Your task to perform on an android device: Go to Yahoo.com Image 0: 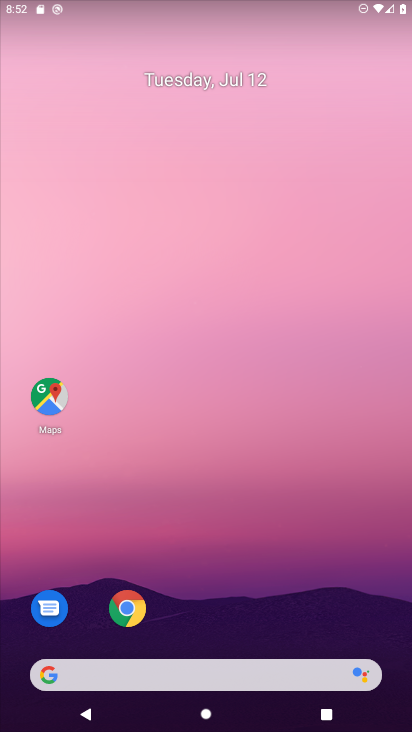
Step 0: click (129, 603)
Your task to perform on an android device: Go to Yahoo.com Image 1: 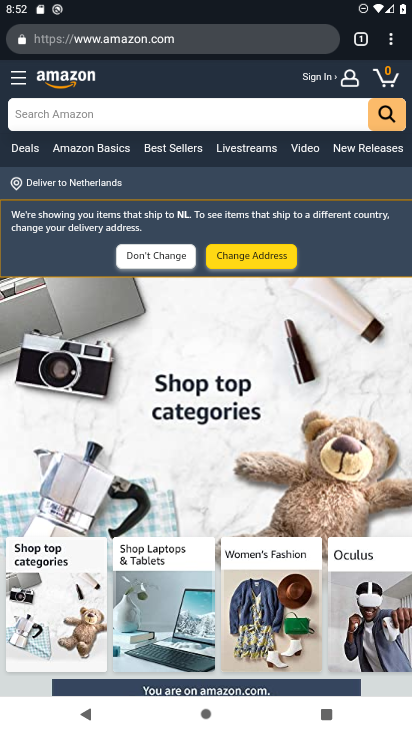
Step 1: click (365, 36)
Your task to perform on an android device: Go to Yahoo.com Image 2: 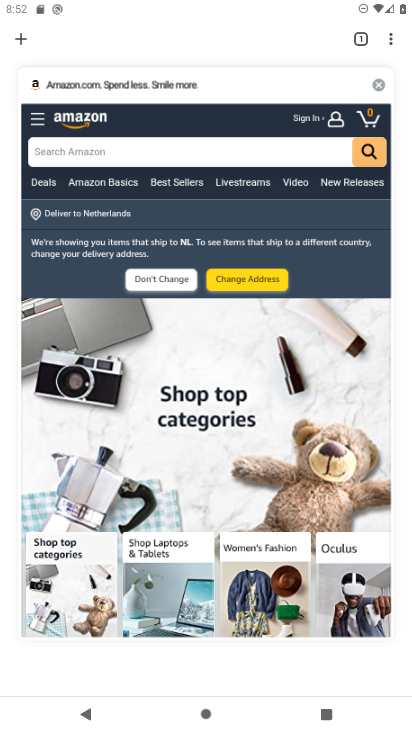
Step 2: click (29, 40)
Your task to perform on an android device: Go to Yahoo.com Image 3: 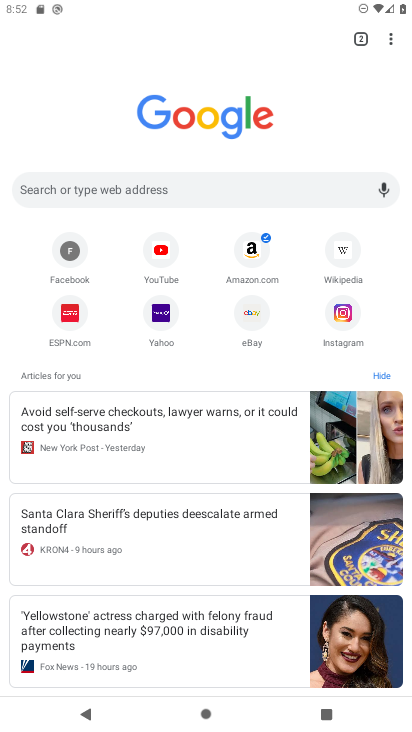
Step 3: click (167, 325)
Your task to perform on an android device: Go to Yahoo.com Image 4: 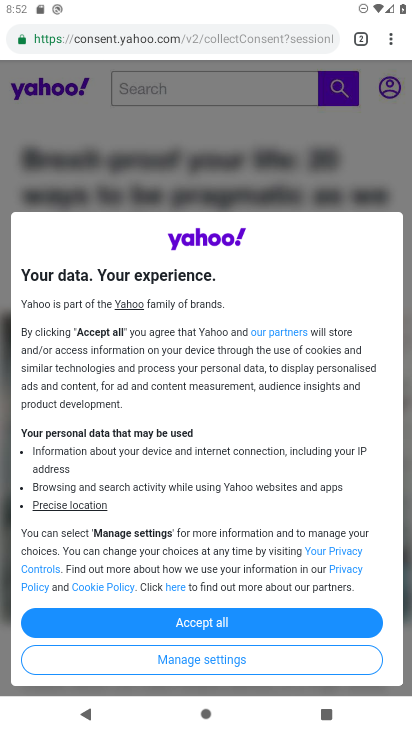
Step 4: task complete